Your task to perform on an android device: check google app version Image 0: 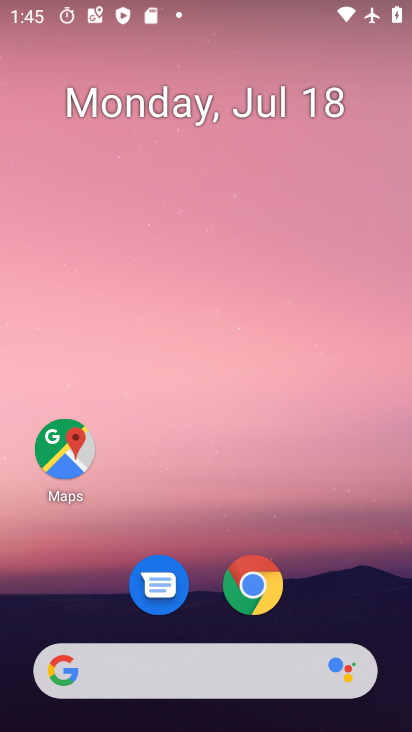
Step 0: press home button
Your task to perform on an android device: check google app version Image 1: 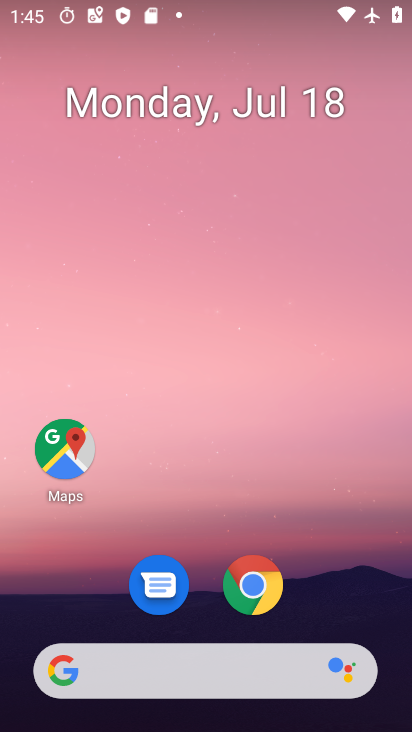
Step 1: drag from (224, 665) to (294, 136)
Your task to perform on an android device: check google app version Image 2: 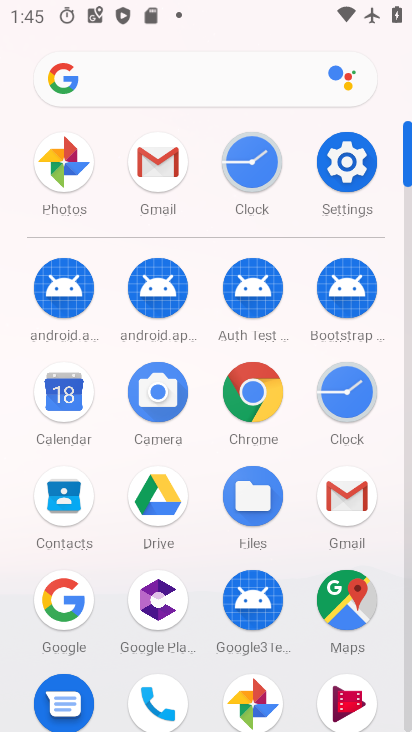
Step 2: click (71, 596)
Your task to perform on an android device: check google app version Image 3: 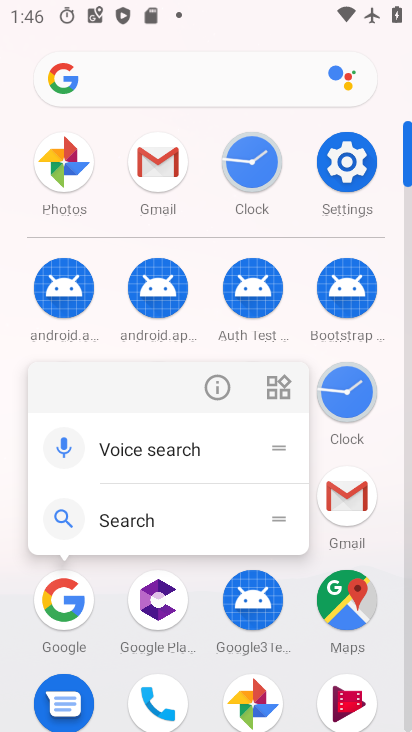
Step 3: click (224, 388)
Your task to perform on an android device: check google app version Image 4: 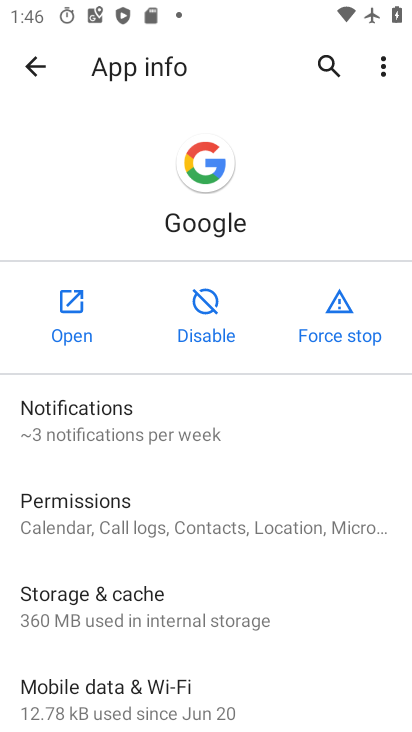
Step 4: drag from (220, 644) to (321, 7)
Your task to perform on an android device: check google app version Image 5: 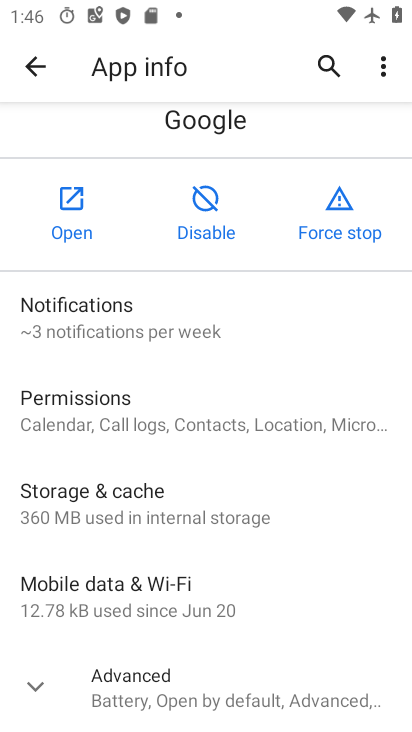
Step 5: drag from (231, 589) to (315, 6)
Your task to perform on an android device: check google app version Image 6: 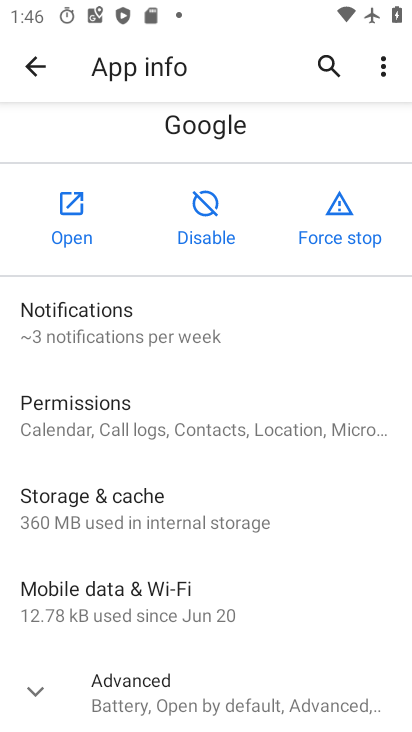
Step 6: click (150, 677)
Your task to perform on an android device: check google app version Image 7: 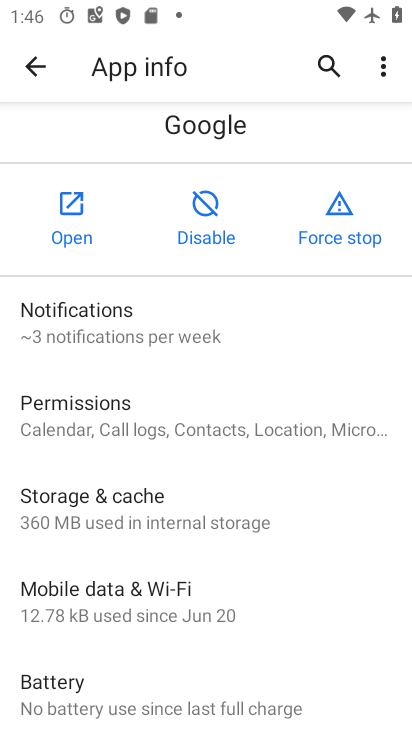
Step 7: task complete